Your task to perform on an android device: turn off picture-in-picture Image 0: 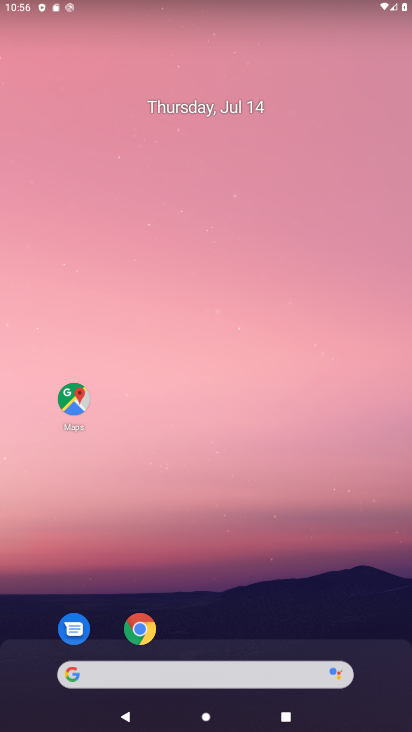
Step 0: click (155, 628)
Your task to perform on an android device: turn off picture-in-picture Image 1: 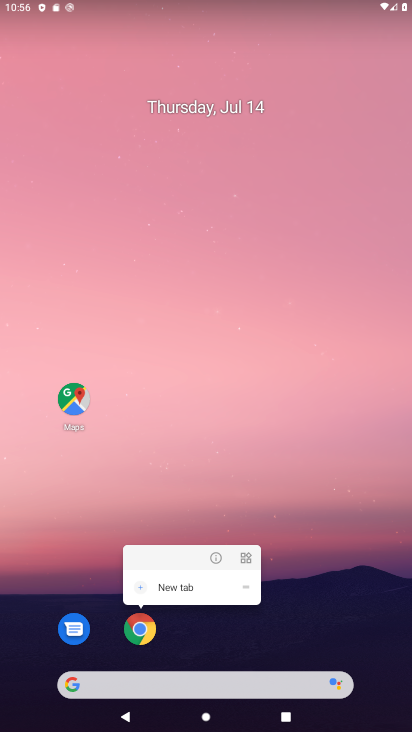
Step 1: click (214, 553)
Your task to perform on an android device: turn off picture-in-picture Image 2: 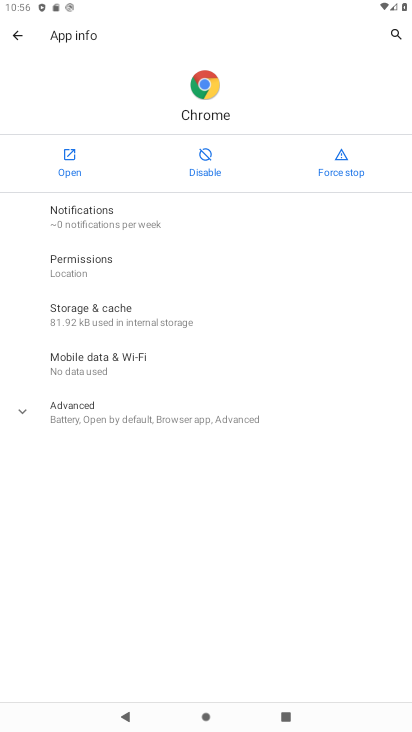
Step 2: click (106, 417)
Your task to perform on an android device: turn off picture-in-picture Image 3: 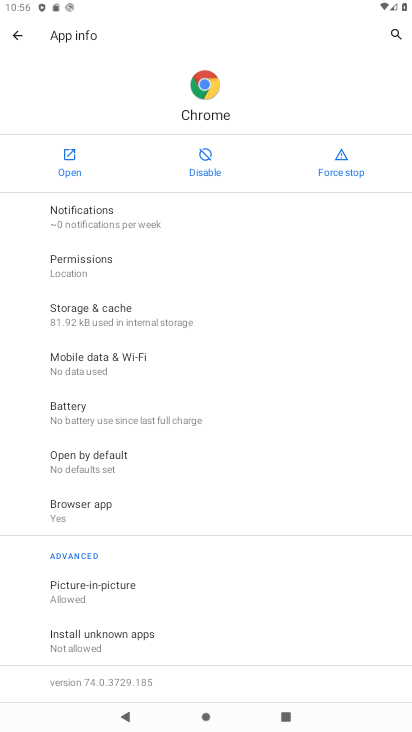
Step 3: click (76, 599)
Your task to perform on an android device: turn off picture-in-picture Image 4: 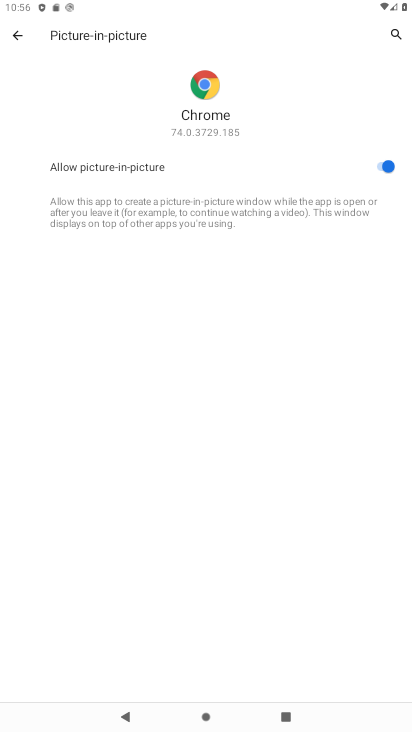
Step 4: click (362, 172)
Your task to perform on an android device: turn off picture-in-picture Image 5: 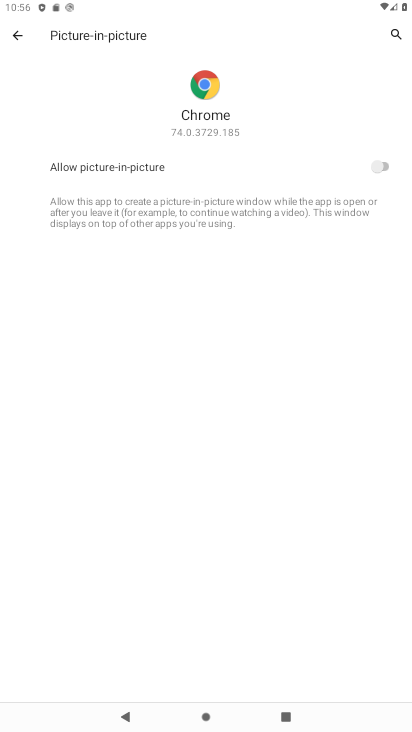
Step 5: task complete